Your task to perform on an android device: When is my next appointment? Image 0: 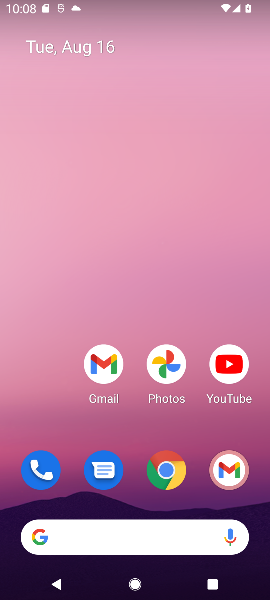
Step 0: drag from (58, 378) to (160, 0)
Your task to perform on an android device: When is my next appointment? Image 1: 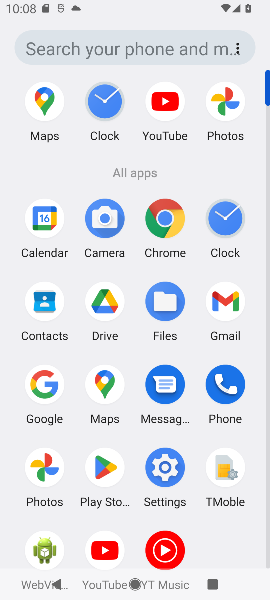
Step 1: click (50, 214)
Your task to perform on an android device: When is my next appointment? Image 2: 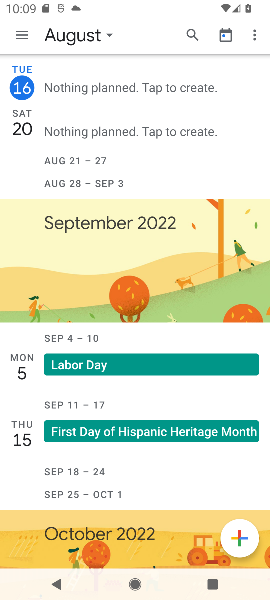
Step 2: task complete